Your task to perform on an android device: What's on my calendar tomorrow? Image 0: 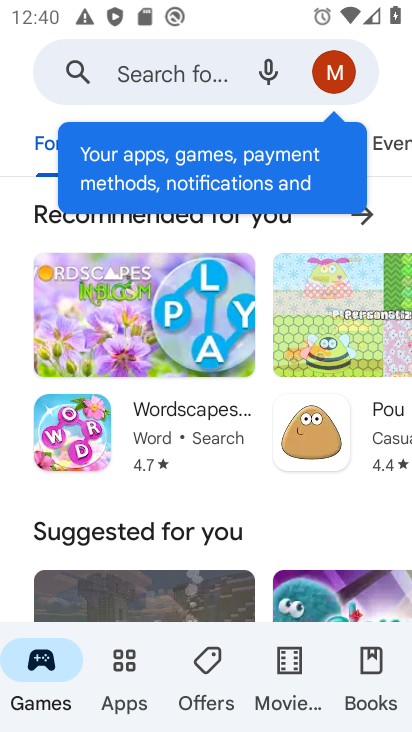
Step 0: press home button
Your task to perform on an android device: What's on my calendar tomorrow? Image 1: 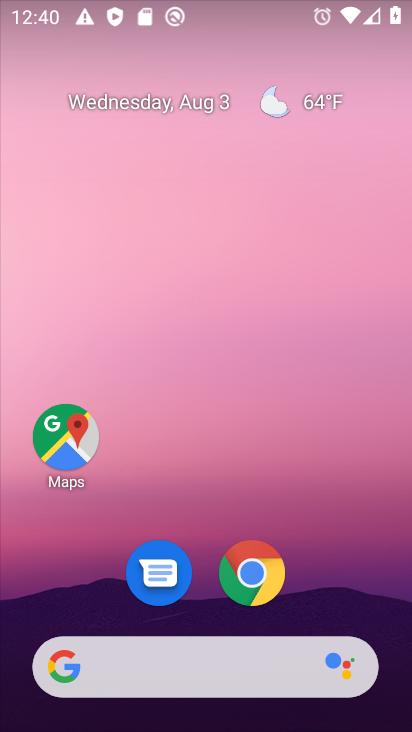
Step 1: drag from (217, 627) to (278, 178)
Your task to perform on an android device: What's on my calendar tomorrow? Image 2: 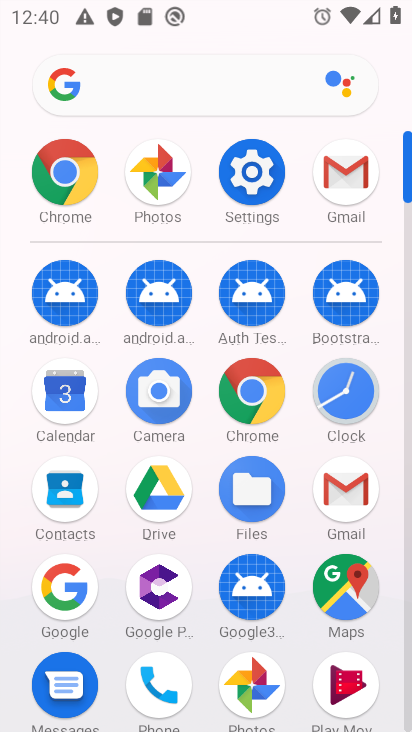
Step 2: click (73, 399)
Your task to perform on an android device: What's on my calendar tomorrow? Image 3: 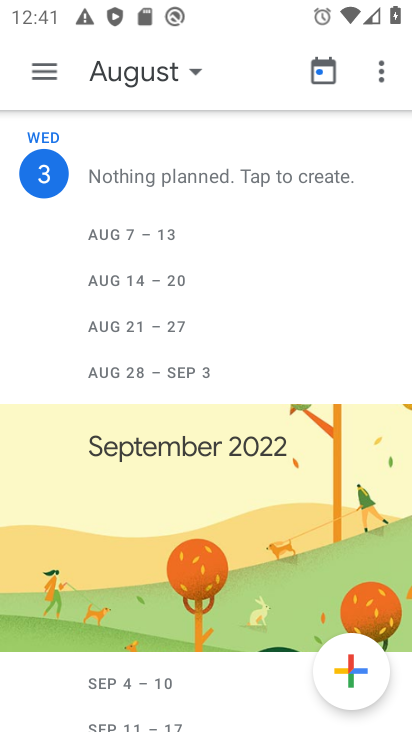
Step 3: click (133, 443)
Your task to perform on an android device: What's on my calendar tomorrow? Image 4: 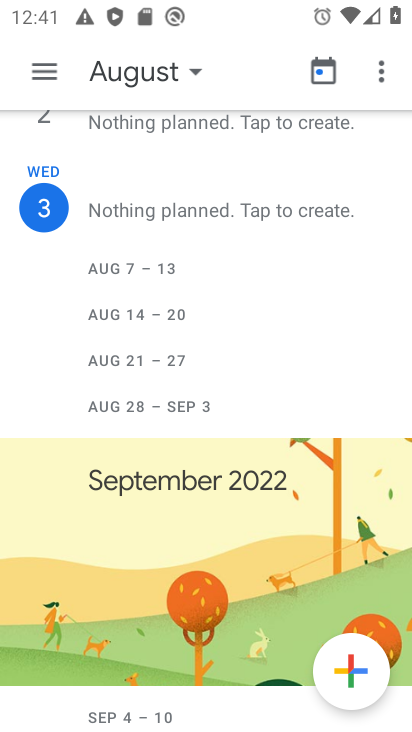
Step 4: click (145, 69)
Your task to perform on an android device: What's on my calendar tomorrow? Image 5: 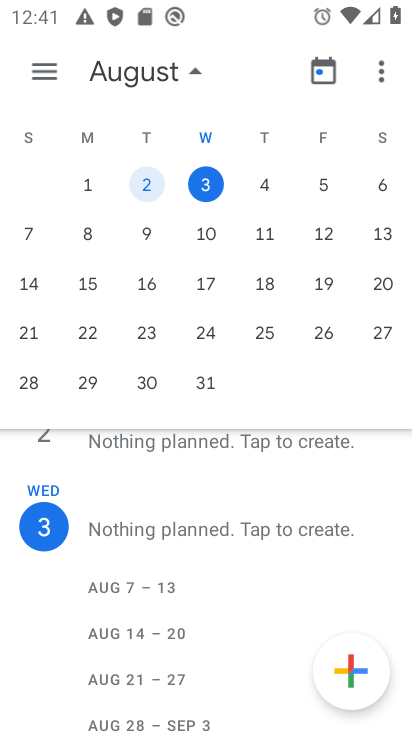
Step 5: click (257, 188)
Your task to perform on an android device: What's on my calendar tomorrow? Image 6: 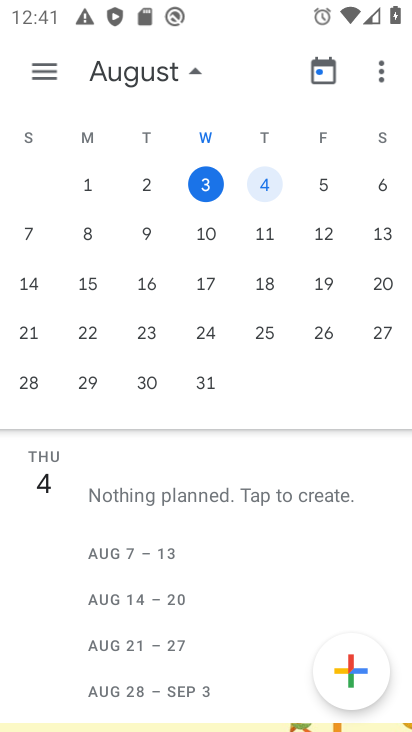
Step 6: click (214, 173)
Your task to perform on an android device: What's on my calendar tomorrow? Image 7: 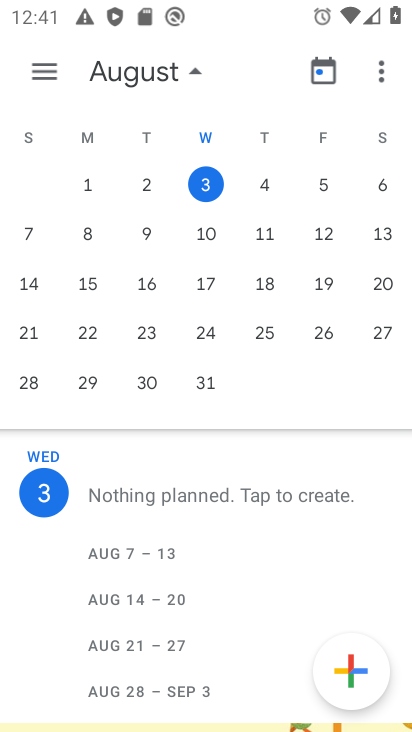
Step 7: click (260, 189)
Your task to perform on an android device: What's on my calendar tomorrow? Image 8: 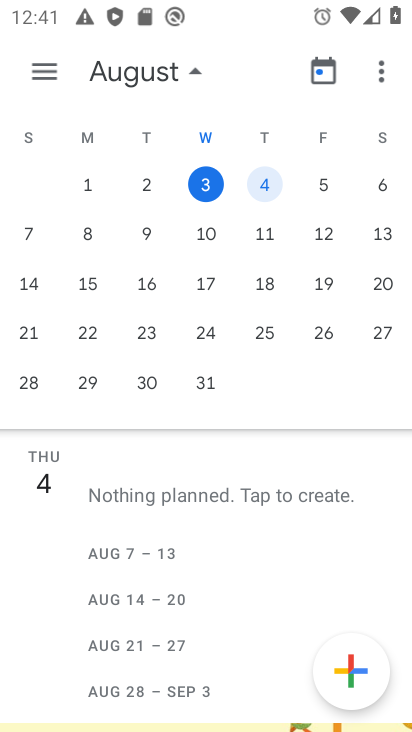
Step 8: task complete